Your task to perform on an android device: add a contact in the contacts app Image 0: 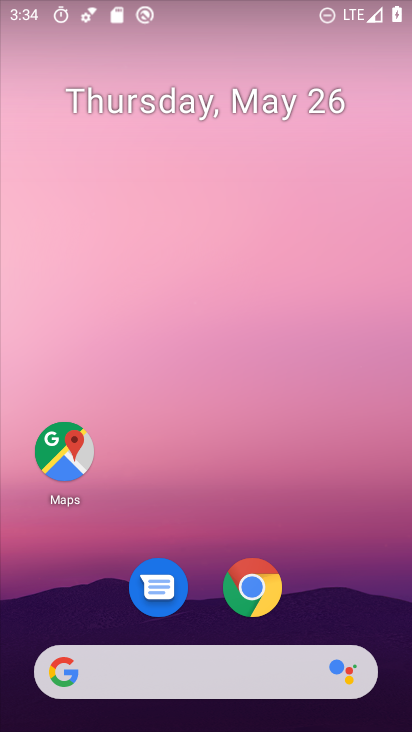
Step 0: drag from (345, 548) to (298, 100)
Your task to perform on an android device: add a contact in the contacts app Image 1: 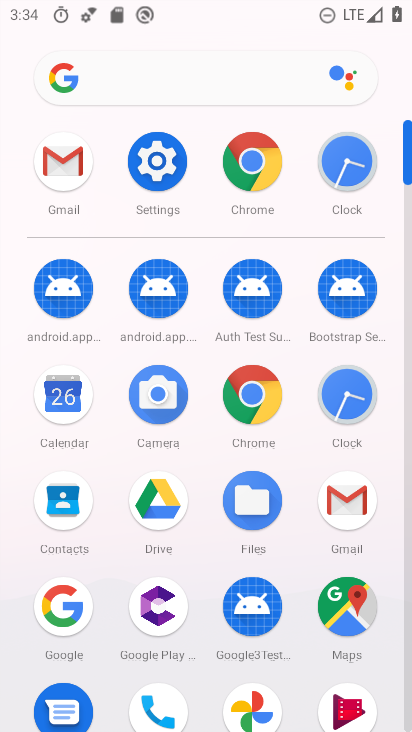
Step 1: click (76, 492)
Your task to perform on an android device: add a contact in the contacts app Image 2: 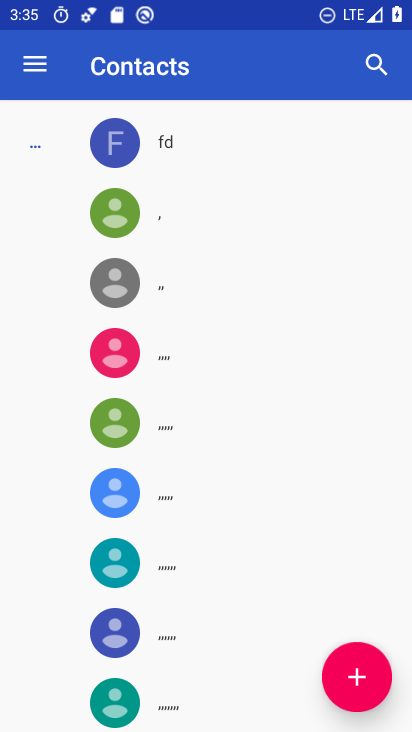
Step 2: click (353, 669)
Your task to perform on an android device: add a contact in the contacts app Image 3: 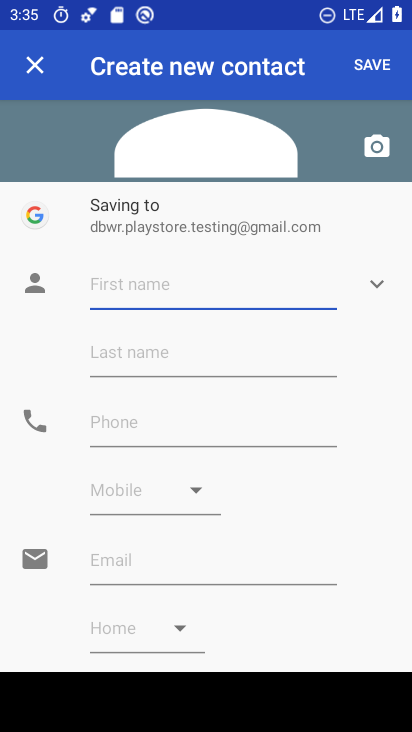
Step 3: click (136, 293)
Your task to perform on an android device: add a contact in the contacts app Image 4: 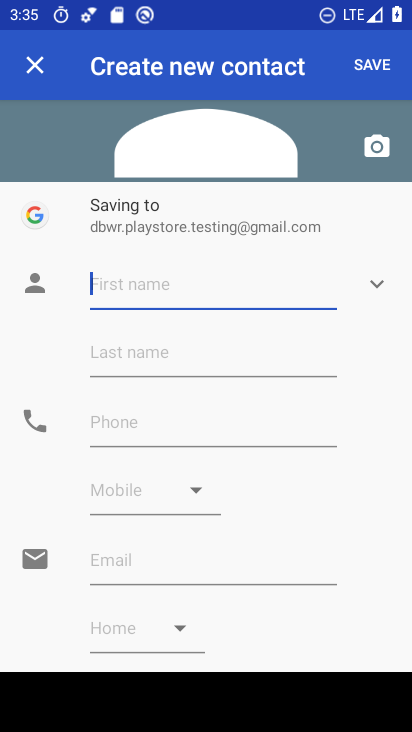
Step 4: type "loving"
Your task to perform on an android device: add a contact in the contacts app Image 5: 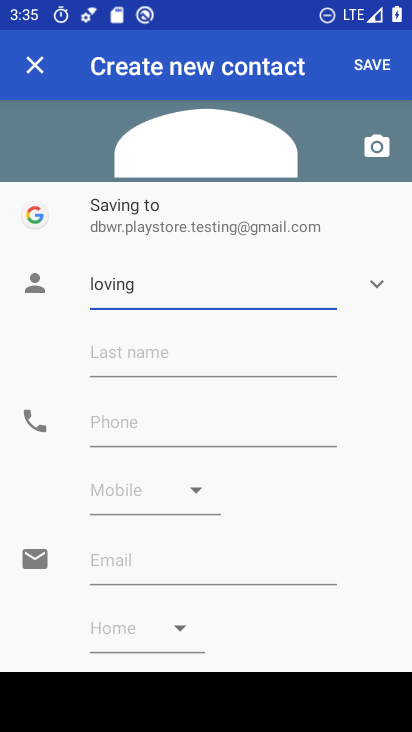
Step 5: click (366, 68)
Your task to perform on an android device: add a contact in the contacts app Image 6: 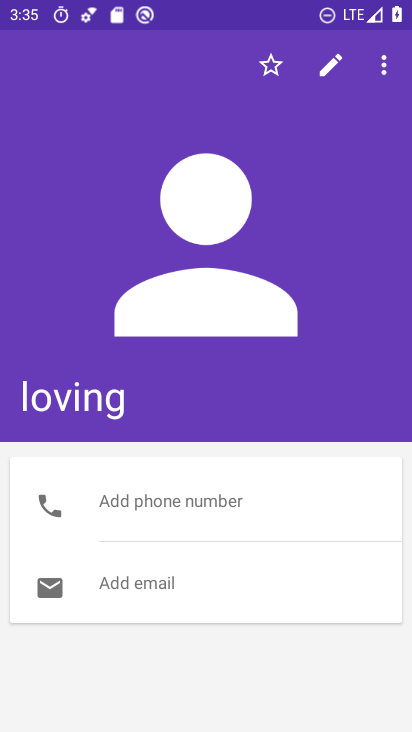
Step 6: task complete